Your task to perform on an android device: Open maps Image 0: 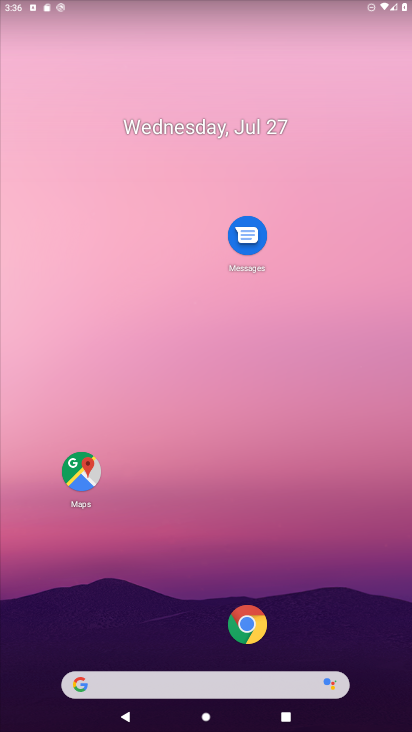
Step 0: click (69, 457)
Your task to perform on an android device: Open maps Image 1: 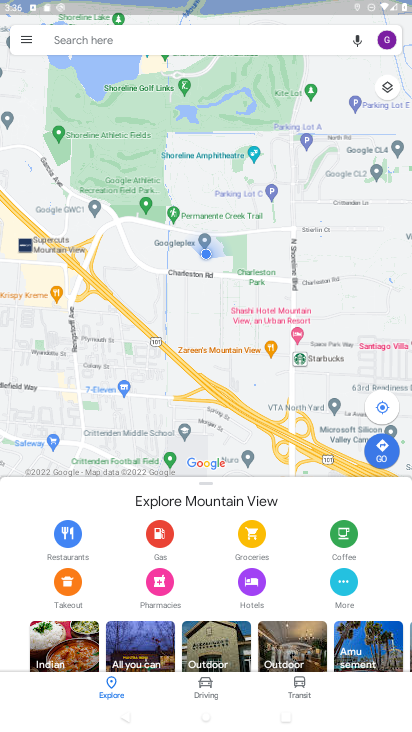
Step 1: task complete